Your task to perform on an android device: Open Yahoo.com Image 0: 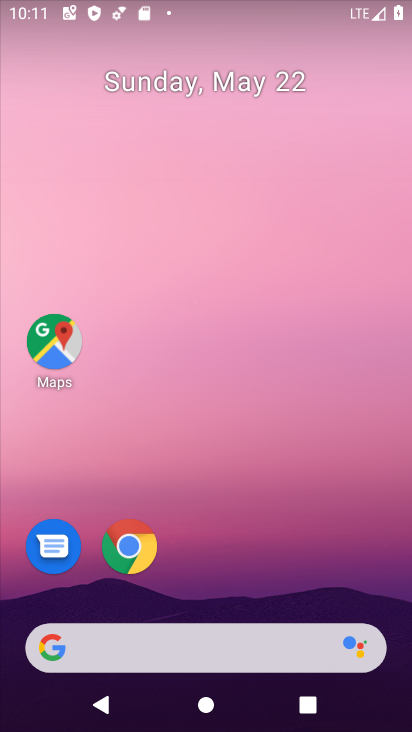
Step 0: drag from (195, 593) to (280, 184)
Your task to perform on an android device: Open Yahoo.com Image 1: 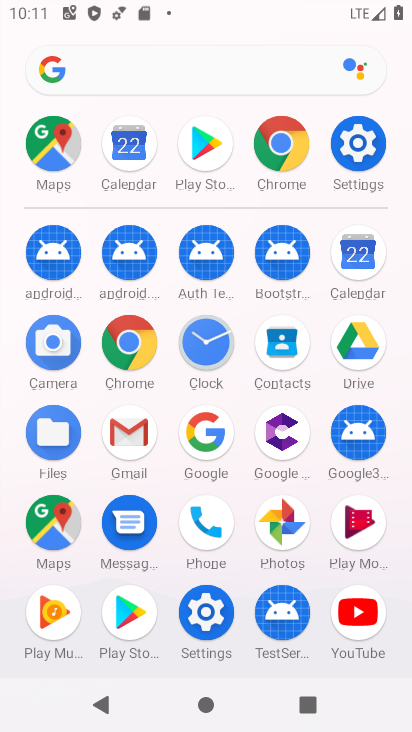
Step 1: click (164, 82)
Your task to perform on an android device: Open Yahoo.com Image 2: 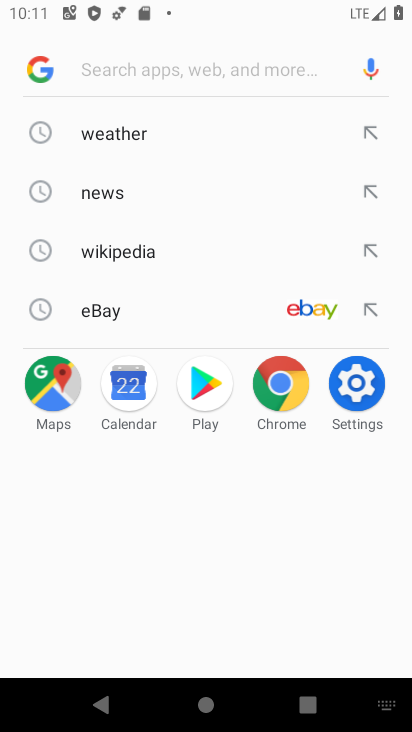
Step 2: type "yaooh"
Your task to perform on an android device: Open Yahoo.com Image 3: 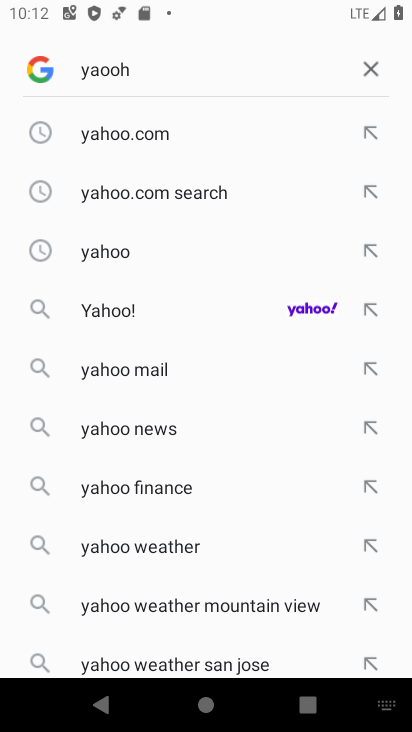
Step 3: click (84, 146)
Your task to perform on an android device: Open Yahoo.com Image 4: 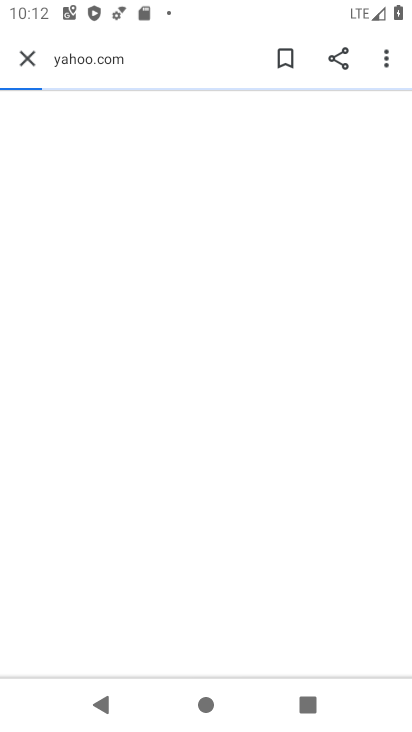
Step 4: task complete